Your task to perform on an android device: install app "AliExpress" Image 0: 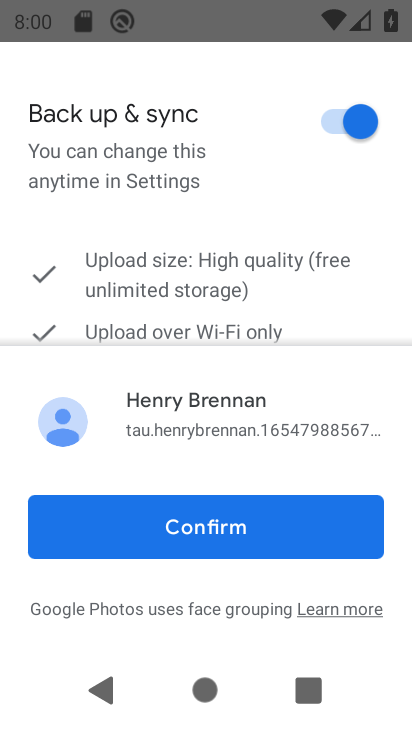
Step 0: press back button
Your task to perform on an android device: install app "AliExpress" Image 1: 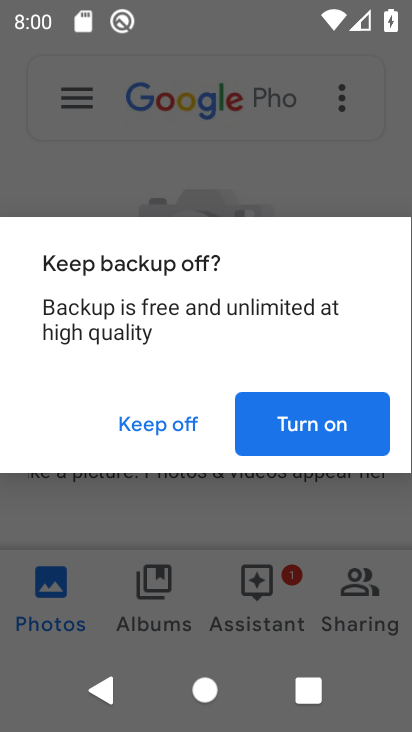
Step 1: click (188, 411)
Your task to perform on an android device: install app "AliExpress" Image 2: 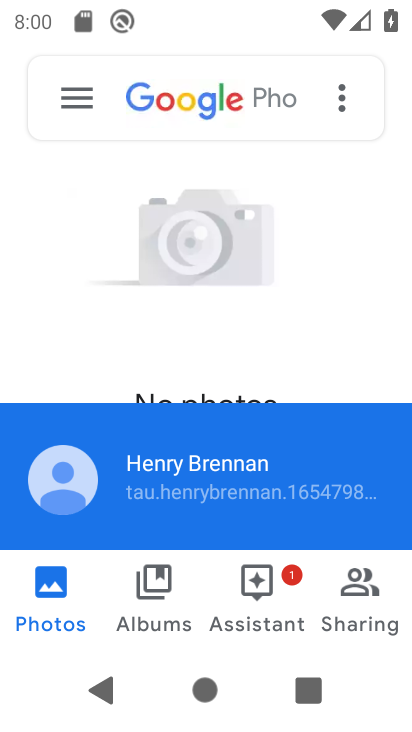
Step 2: press home button
Your task to perform on an android device: install app "AliExpress" Image 3: 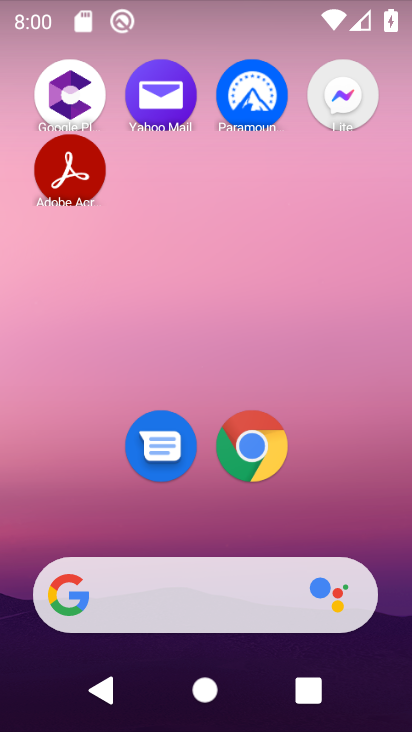
Step 3: drag from (211, 527) to (168, 104)
Your task to perform on an android device: install app "AliExpress" Image 4: 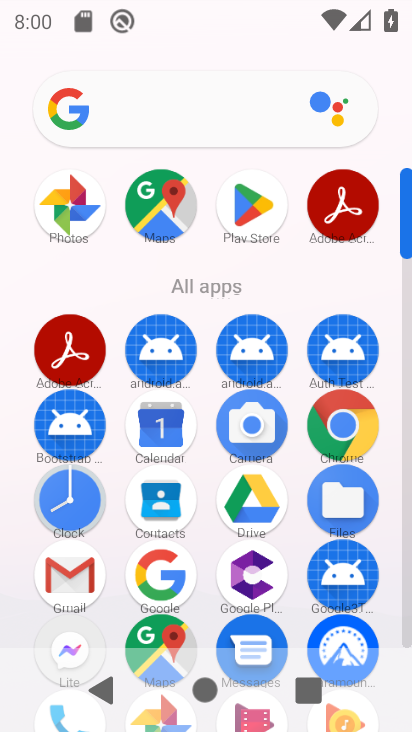
Step 4: click (233, 186)
Your task to perform on an android device: install app "AliExpress" Image 5: 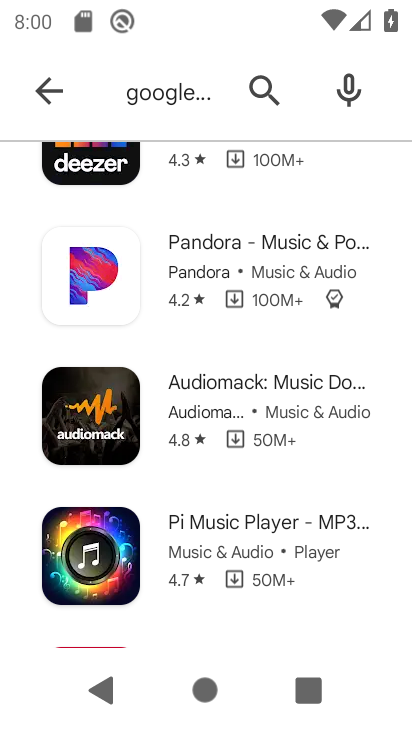
Step 5: click (329, 85)
Your task to perform on an android device: install app "AliExpress" Image 6: 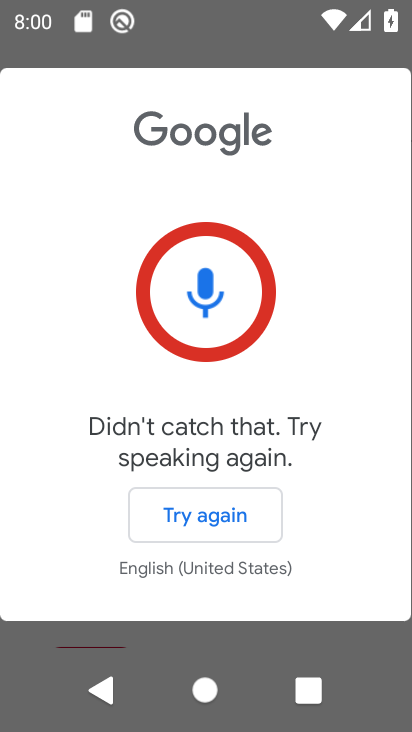
Step 6: press back button
Your task to perform on an android device: install app "AliExpress" Image 7: 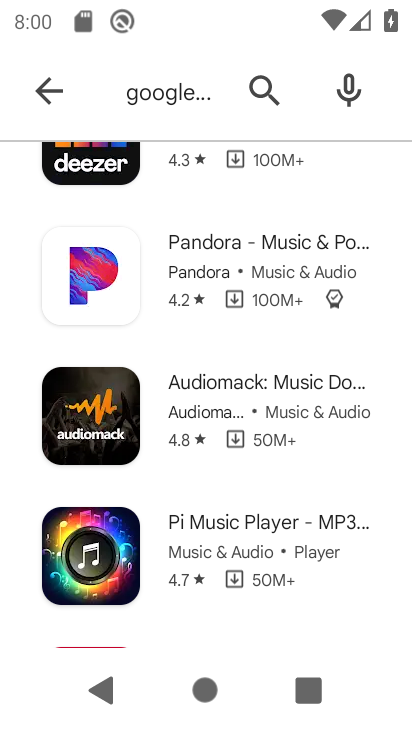
Step 7: click (264, 81)
Your task to perform on an android device: install app "AliExpress" Image 8: 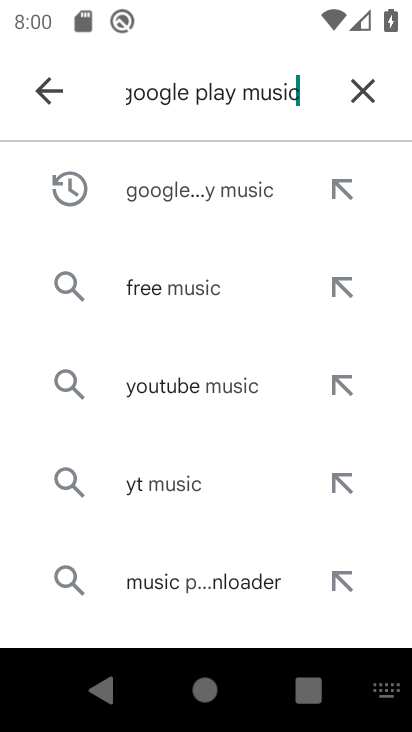
Step 8: click (371, 91)
Your task to perform on an android device: install app "AliExpress" Image 9: 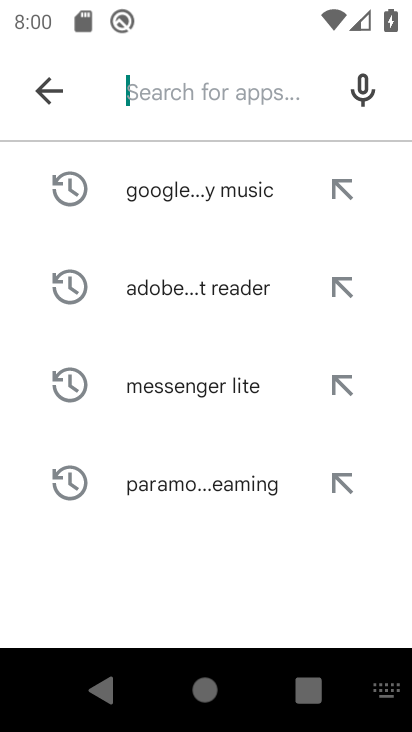
Step 9: type "AliExpress"
Your task to perform on an android device: install app "AliExpress" Image 10: 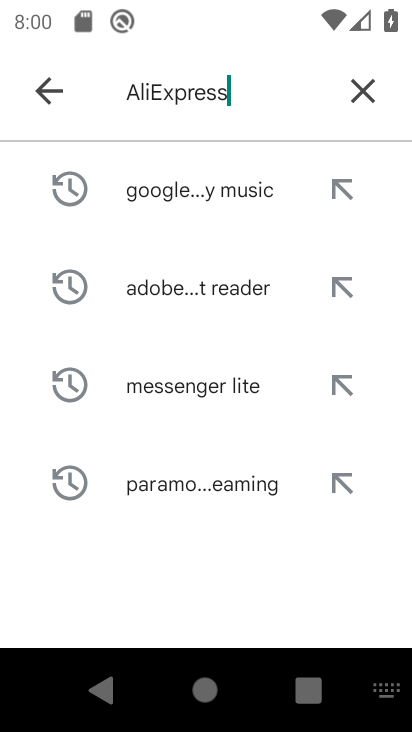
Step 10: type ""
Your task to perform on an android device: install app "AliExpress" Image 11: 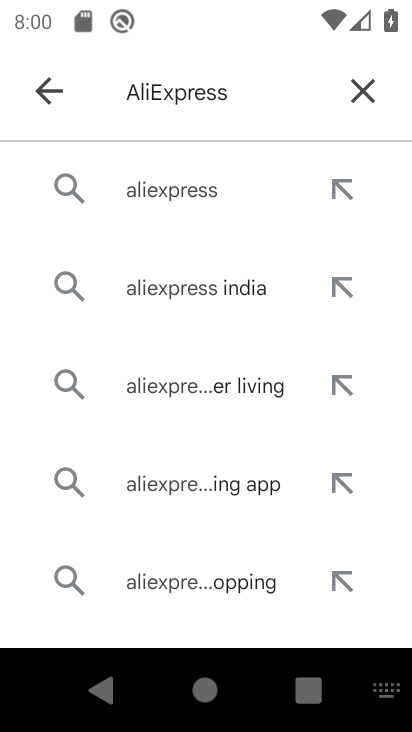
Step 11: click (200, 177)
Your task to perform on an android device: install app "AliExpress" Image 12: 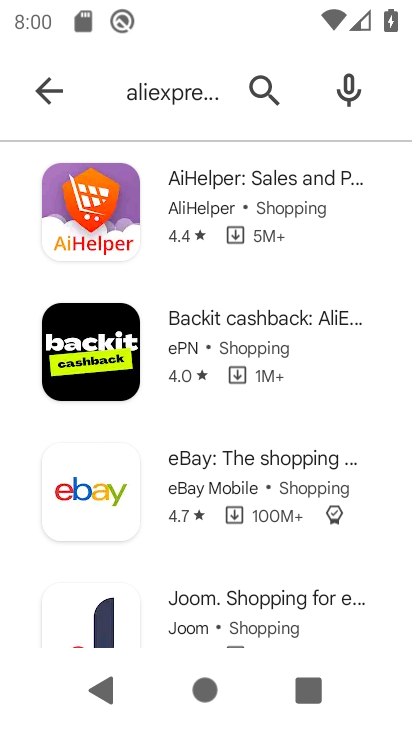
Step 12: task complete